Your task to perform on an android device: Go to CNN.com Image 0: 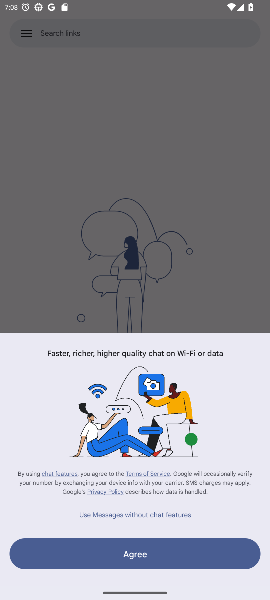
Step 0: press home button
Your task to perform on an android device: Go to CNN.com Image 1: 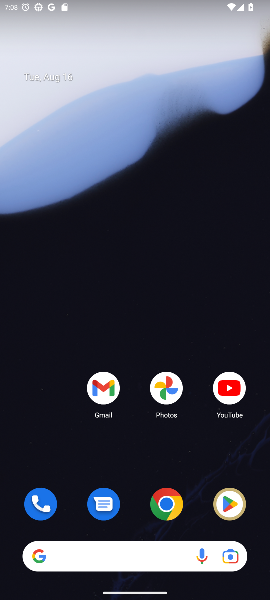
Step 1: click (73, 558)
Your task to perform on an android device: Go to CNN.com Image 2: 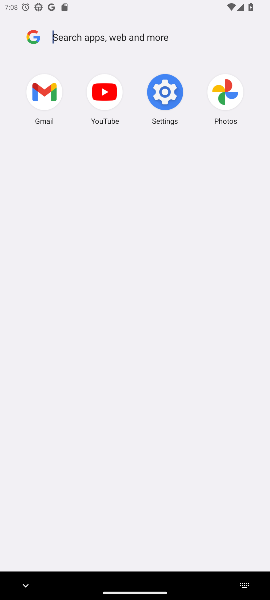
Step 2: type "CNN.com"
Your task to perform on an android device: Go to CNN.com Image 3: 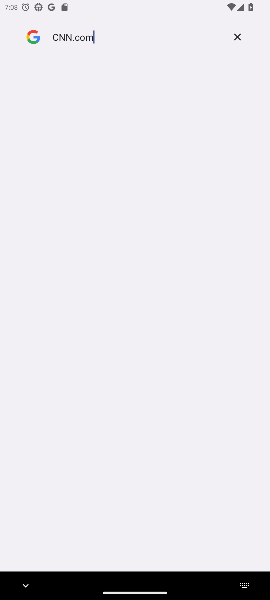
Step 3: type ""
Your task to perform on an android device: Go to CNN.com Image 4: 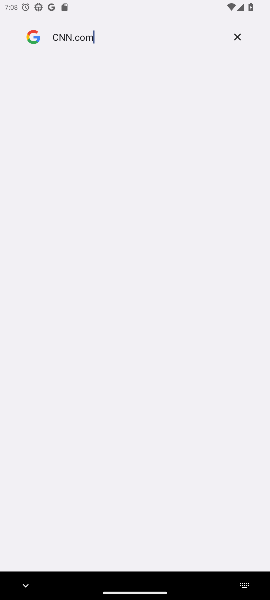
Step 4: type ""
Your task to perform on an android device: Go to CNN.com Image 5: 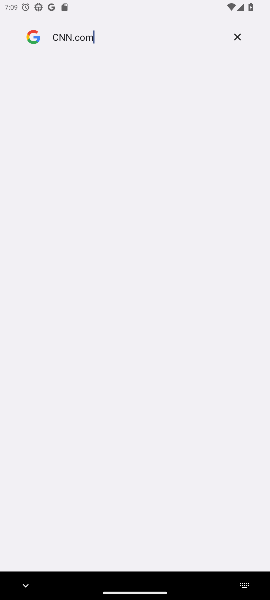
Step 5: task complete